Your task to perform on an android device: open app "LiveIn - Share Your Moment" (install if not already installed) and enter user name: "certifies@gmail.com" and password: "compartmented" Image 0: 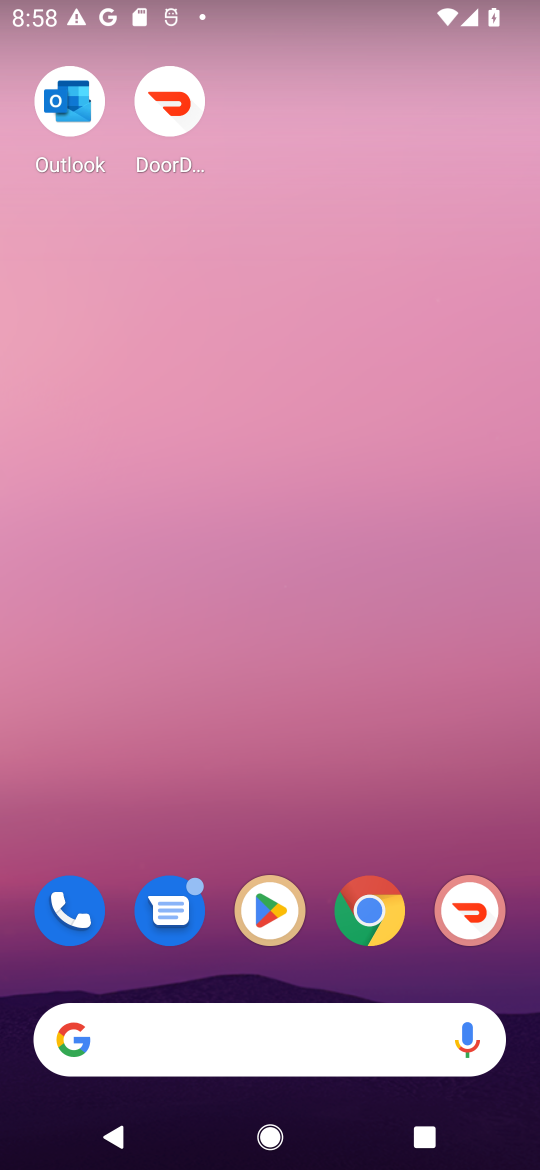
Step 0: click (275, 904)
Your task to perform on an android device: open app "LiveIn - Share Your Moment" (install if not already installed) and enter user name: "certifies@gmail.com" and password: "compartmented" Image 1: 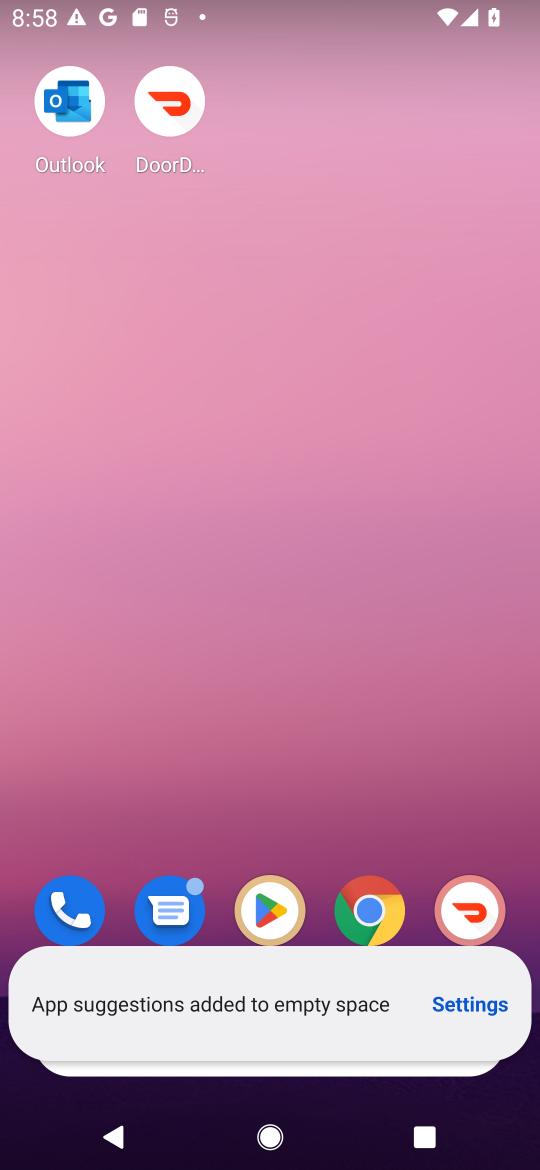
Step 1: click (275, 904)
Your task to perform on an android device: open app "LiveIn - Share Your Moment" (install if not already installed) and enter user name: "certifies@gmail.com" and password: "compartmented" Image 2: 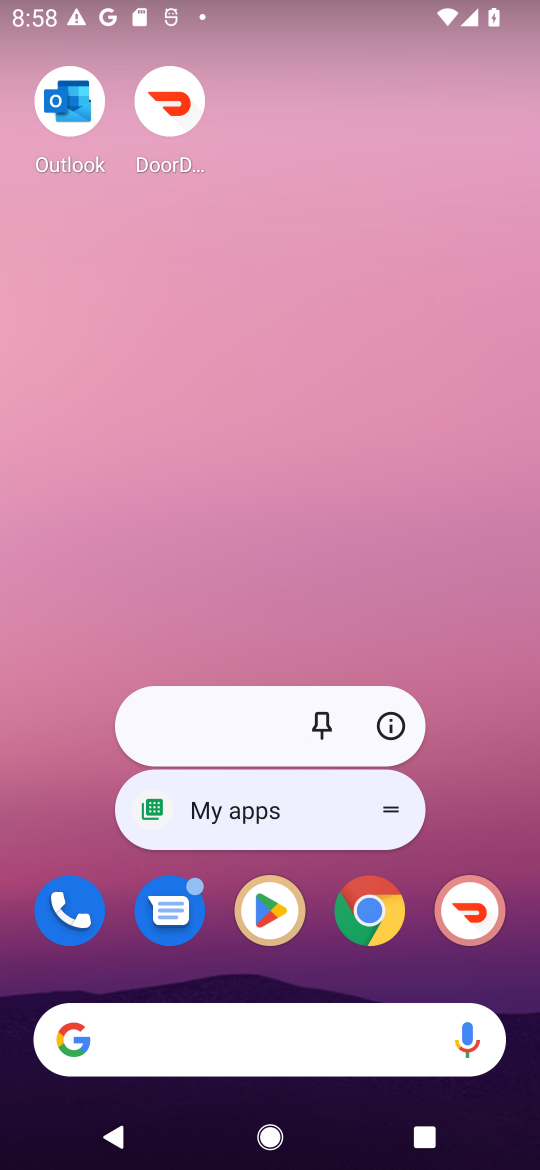
Step 2: click (275, 904)
Your task to perform on an android device: open app "LiveIn - Share Your Moment" (install if not already installed) and enter user name: "certifies@gmail.com" and password: "compartmented" Image 3: 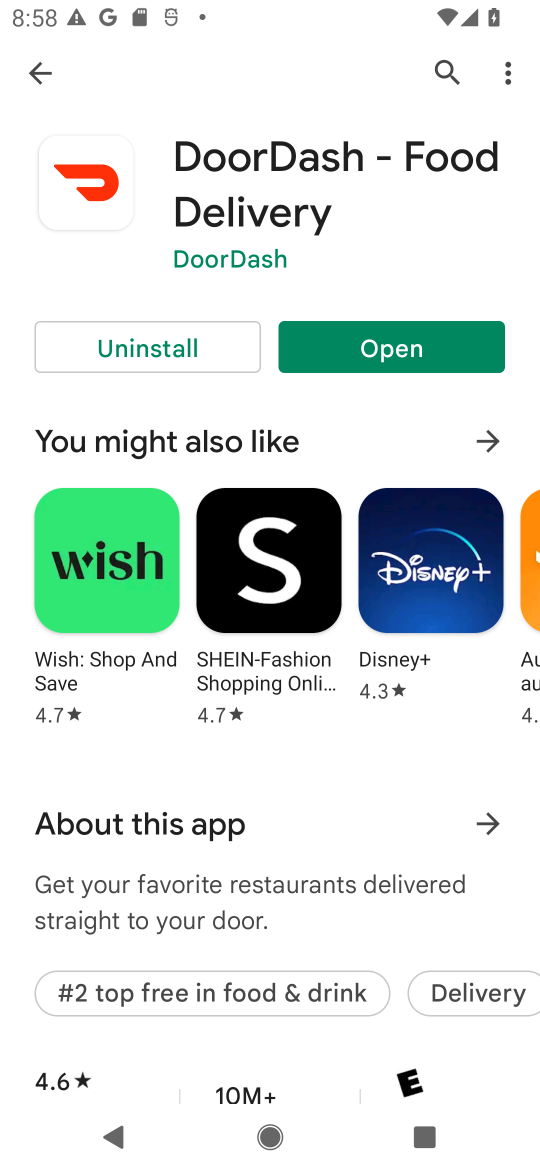
Step 3: click (449, 70)
Your task to perform on an android device: open app "LiveIn - Share Your Moment" (install if not already installed) and enter user name: "certifies@gmail.com" and password: "compartmented" Image 4: 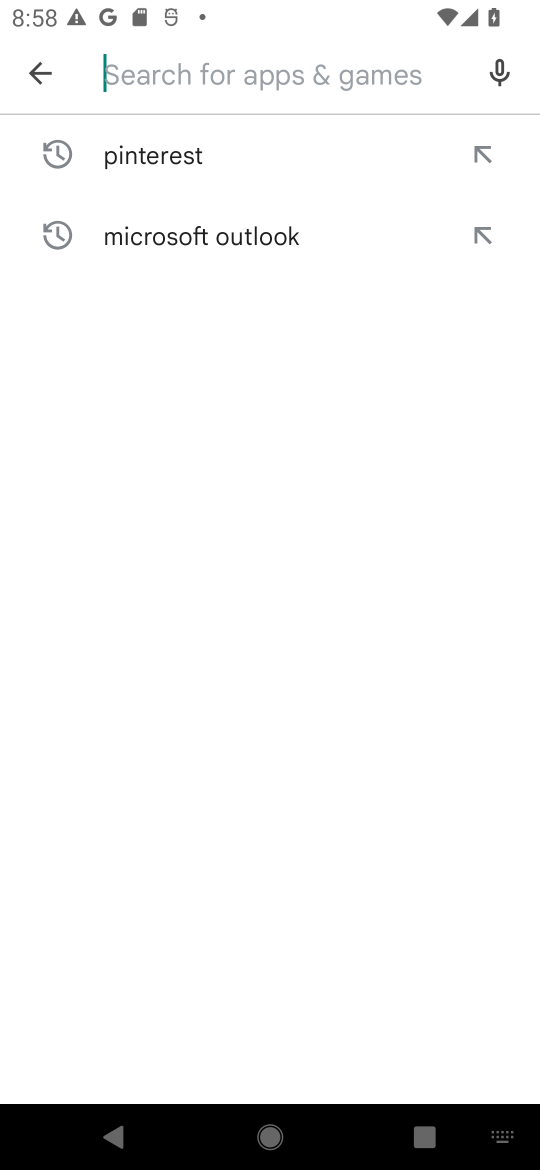
Step 4: type "LiveIn - Share Your Moment"
Your task to perform on an android device: open app "LiveIn - Share Your Moment" (install if not already installed) and enter user name: "certifies@gmail.com" and password: "compartmented" Image 5: 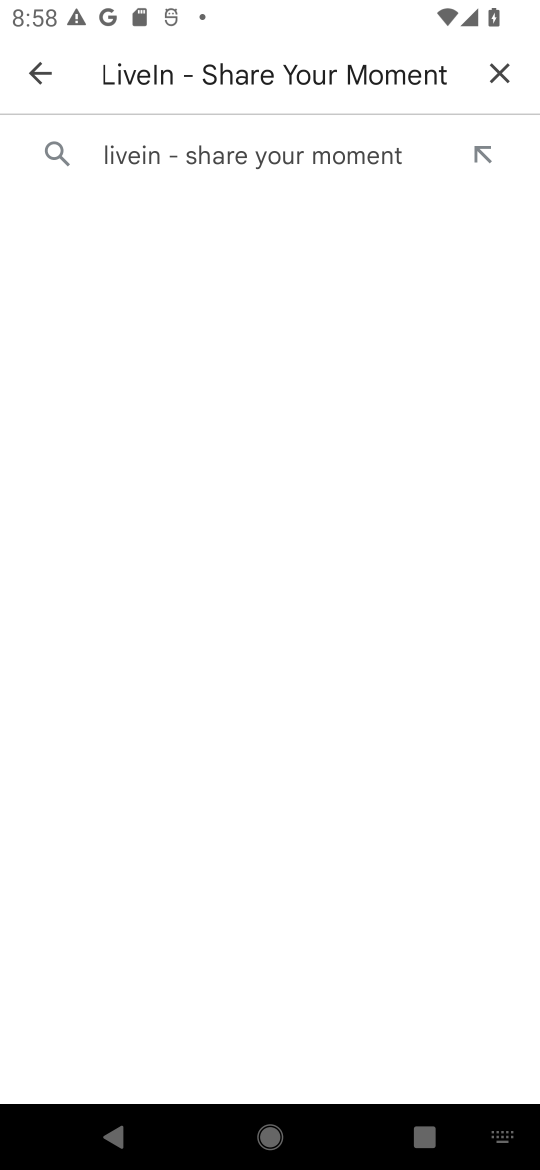
Step 5: click (337, 159)
Your task to perform on an android device: open app "LiveIn - Share Your Moment" (install if not already installed) and enter user name: "certifies@gmail.com" and password: "compartmented" Image 6: 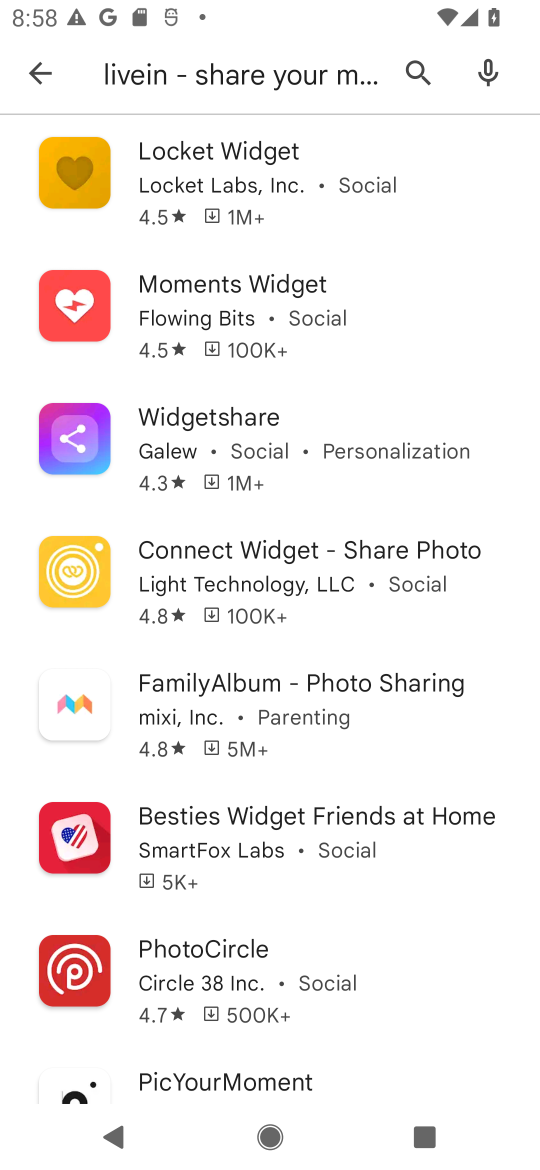
Step 6: task complete